Your task to perform on an android device: turn pop-ups off in chrome Image 0: 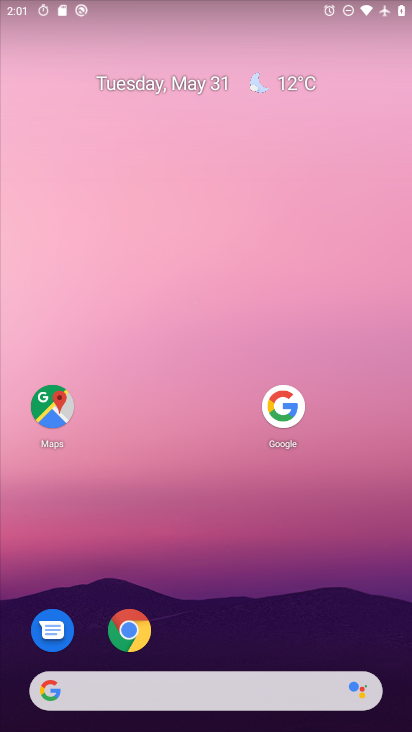
Step 0: click (125, 630)
Your task to perform on an android device: turn pop-ups off in chrome Image 1: 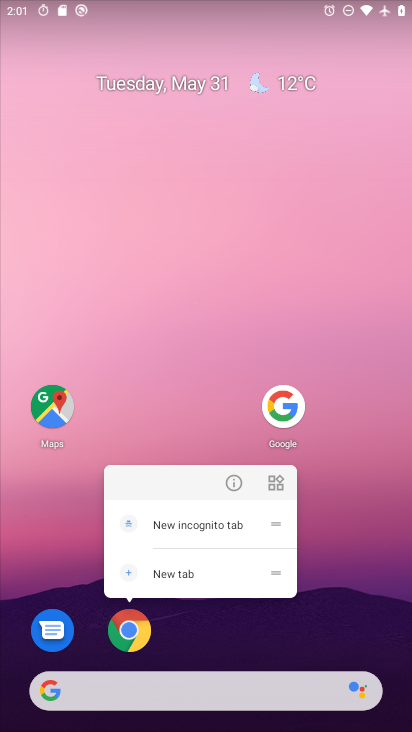
Step 1: click (130, 636)
Your task to perform on an android device: turn pop-ups off in chrome Image 2: 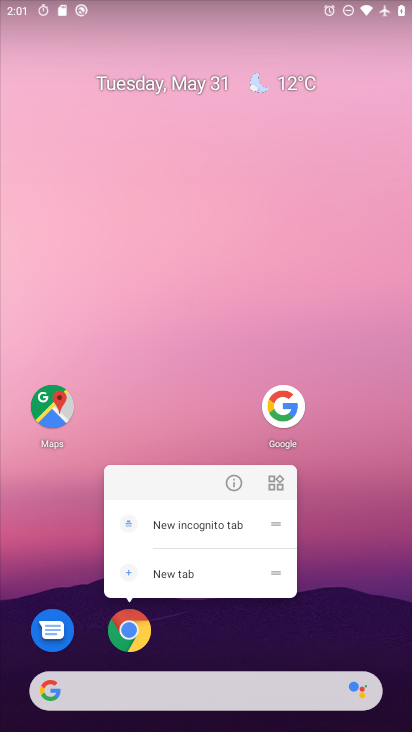
Step 2: click (129, 633)
Your task to perform on an android device: turn pop-ups off in chrome Image 3: 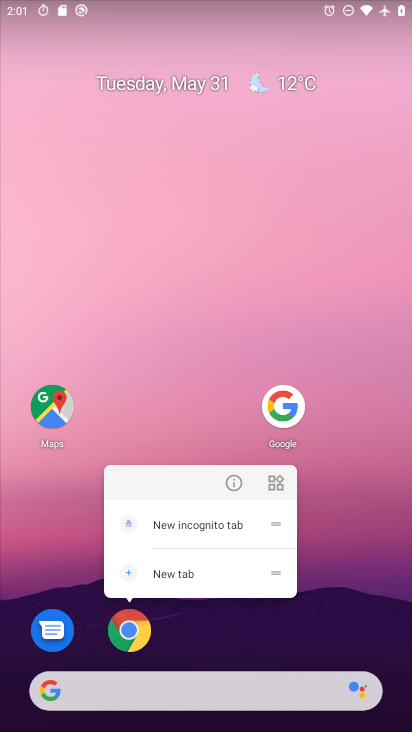
Step 3: click (124, 633)
Your task to perform on an android device: turn pop-ups off in chrome Image 4: 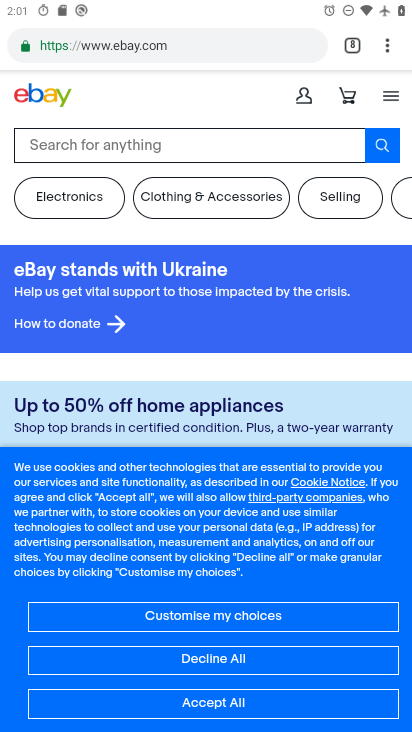
Step 4: drag from (390, 52) to (241, 603)
Your task to perform on an android device: turn pop-ups off in chrome Image 5: 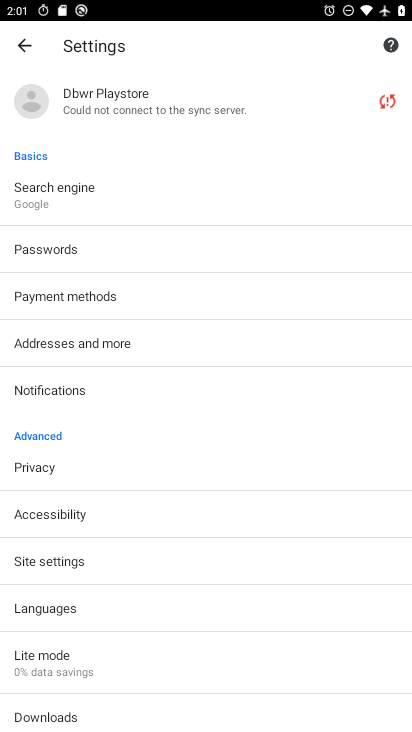
Step 5: click (58, 562)
Your task to perform on an android device: turn pop-ups off in chrome Image 6: 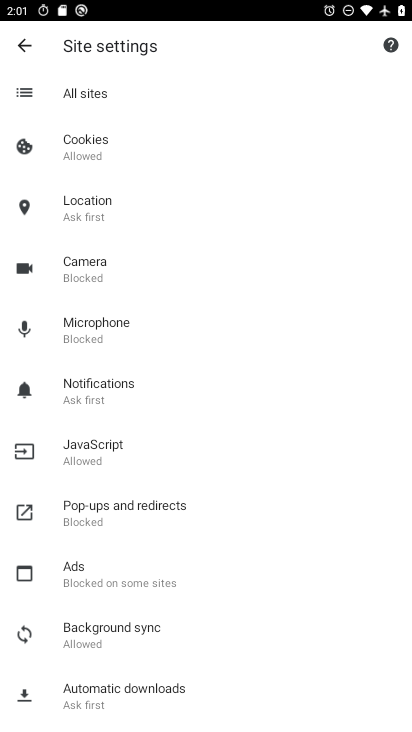
Step 6: click (113, 499)
Your task to perform on an android device: turn pop-ups off in chrome Image 7: 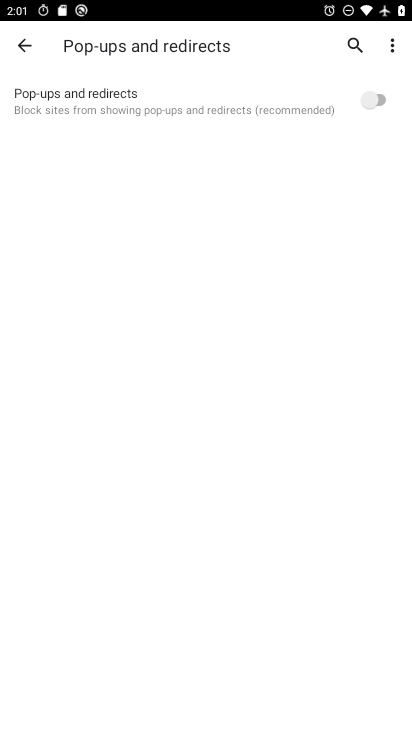
Step 7: task complete